Your task to perform on an android device: check battery use Image 0: 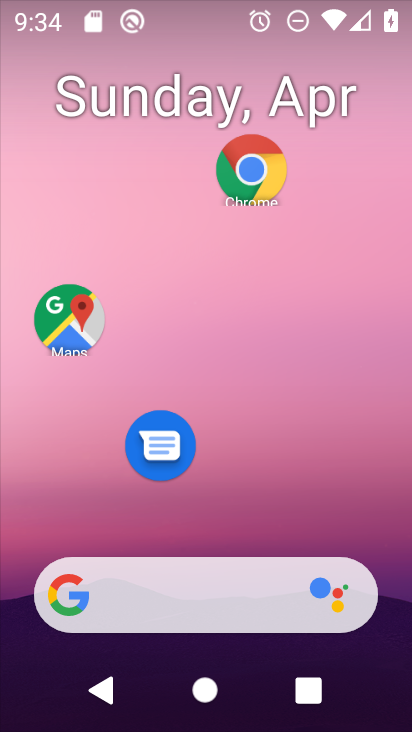
Step 0: drag from (296, 444) to (307, 94)
Your task to perform on an android device: check battery use Image 1: 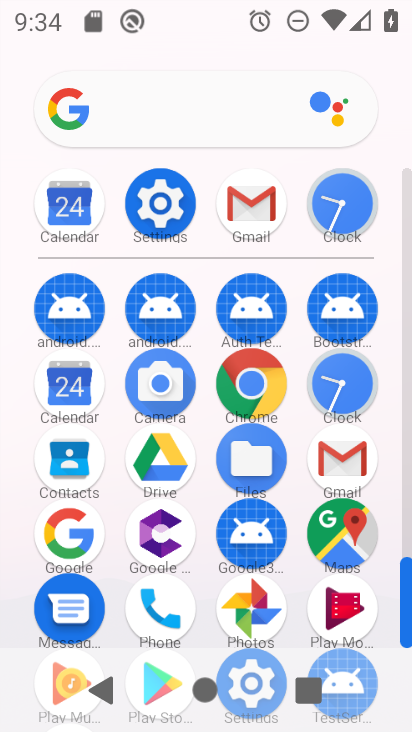
Step 1: click (170, 203)
Your task to perform on an android device: check battery use Image 2: 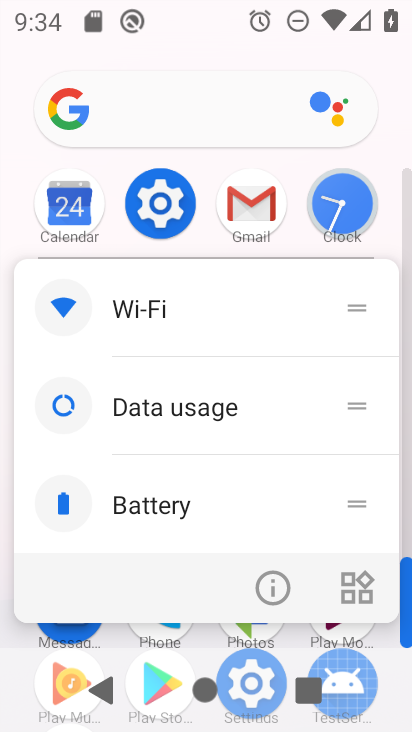
Step 2: click (170, 203)
Your task to perform on an android device: check battery use Image 3: 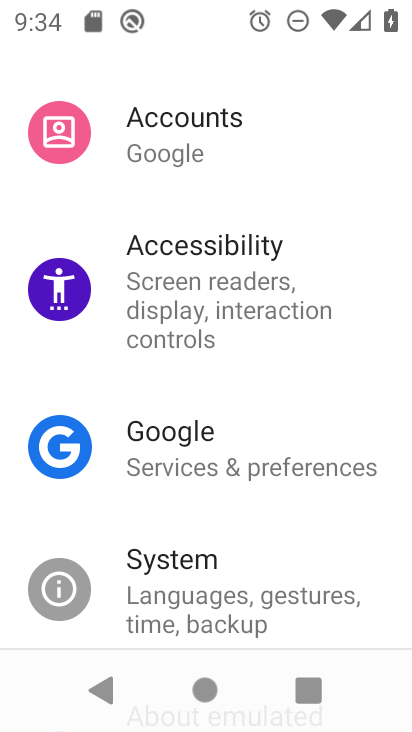
Step 3: drag from (239, 190) to (287, 521)
Your task to perform on an android device: check battery use Image 4: 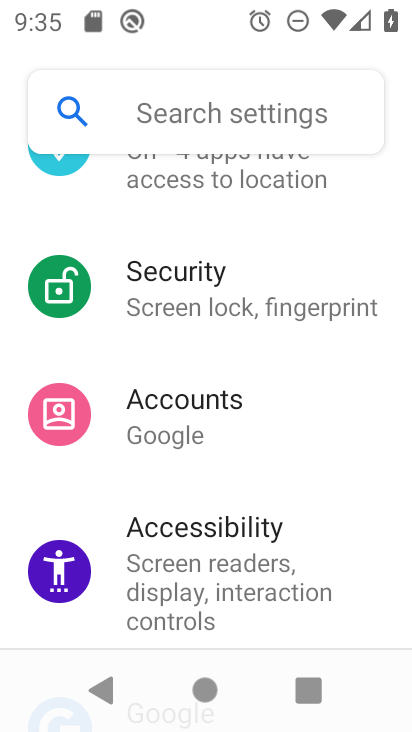
Step 4: drag from (131, 231) to (204, 602)
Your task to perform on an android device: check battery use Image 5: 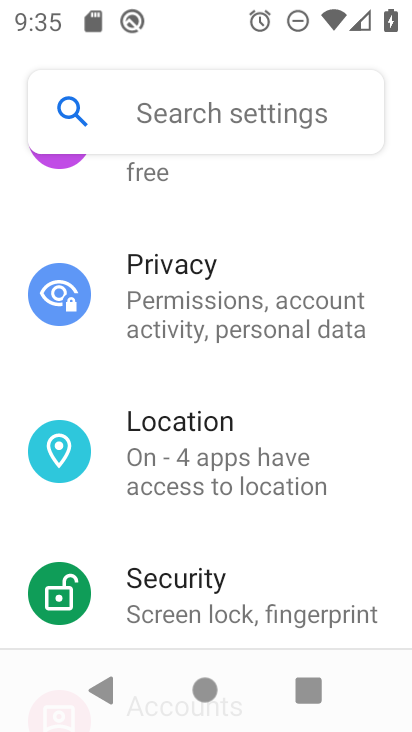
Step 5: drag from (148, 225) to (263, 619)
Your task to perform on an android device: check battery use Image 6: 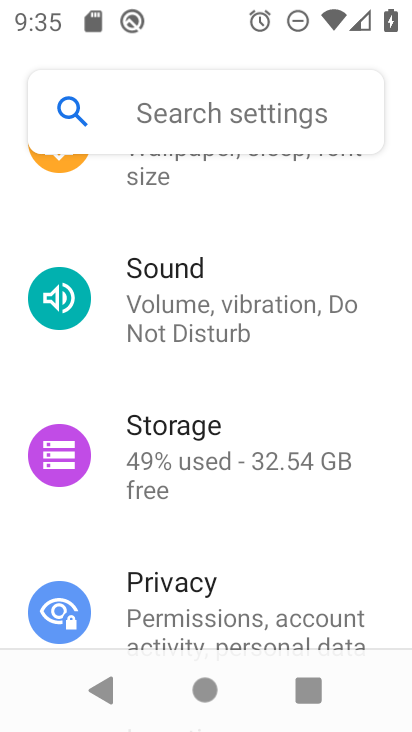
Step 6: drag from (153, 232) to (265, 608)
Your task to perform on an android device: check battery use Image 7: 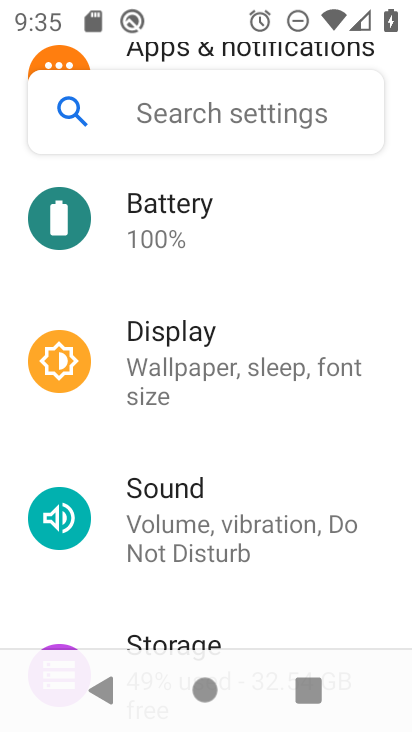
Step 7: drag from (142, 265) to (204, 559)
Your task to perform on an android device: check battery use Image 8: 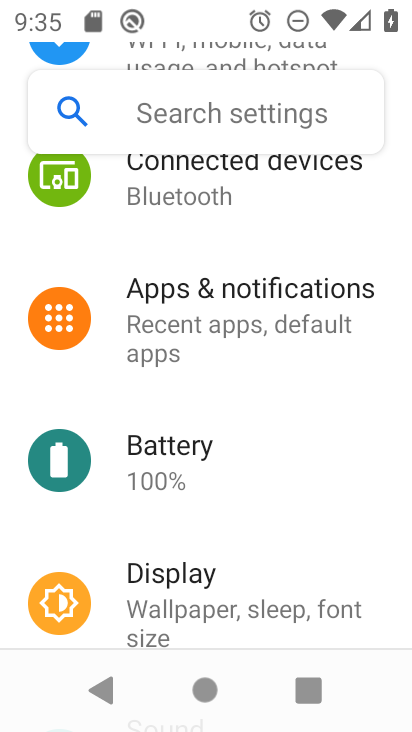
Step 8: drag from (150, 247) to (266, 324)
Your task to perform on an android device: check battery use Image 9: 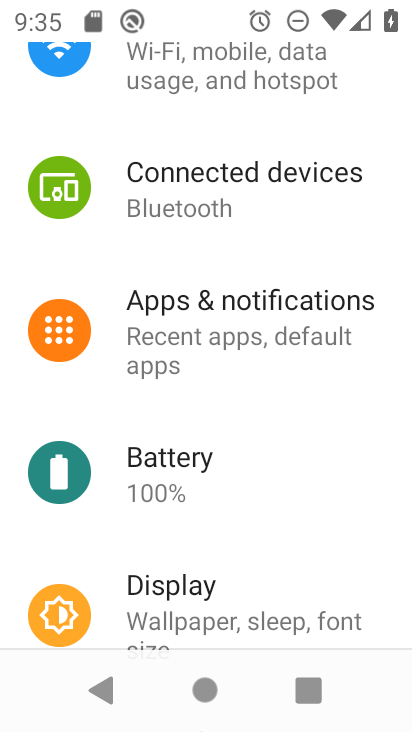
Step 9: click (196, 467)
Your task to perform on an android device: check battery use Image 10: 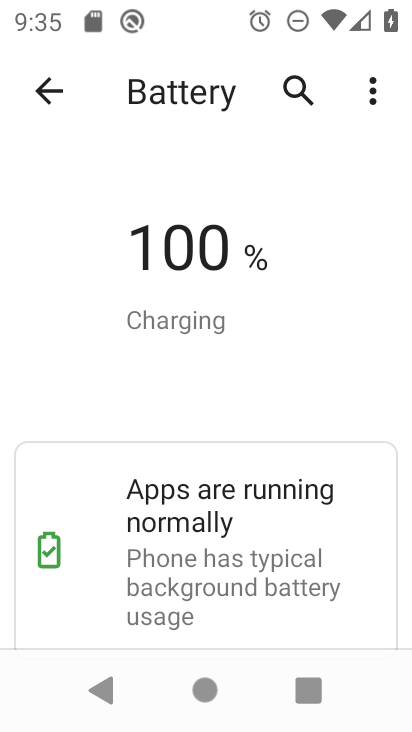
Step 10: click (370, 98)
Your task to perform on an android device: check battery use Image 11: 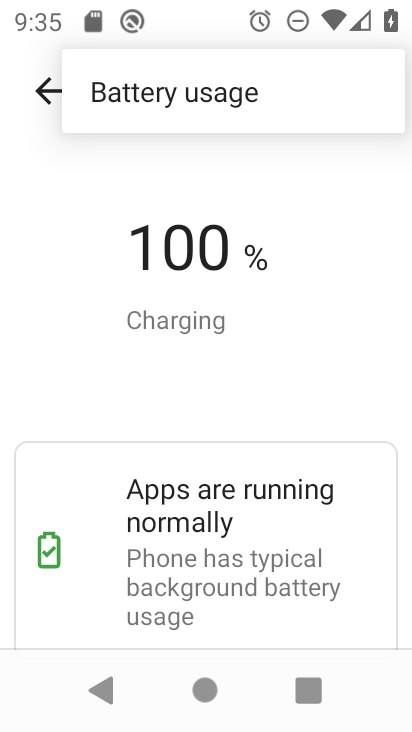
Step 11: click (239, 101)
Your task to perform on an android device: check battery use Image 12: 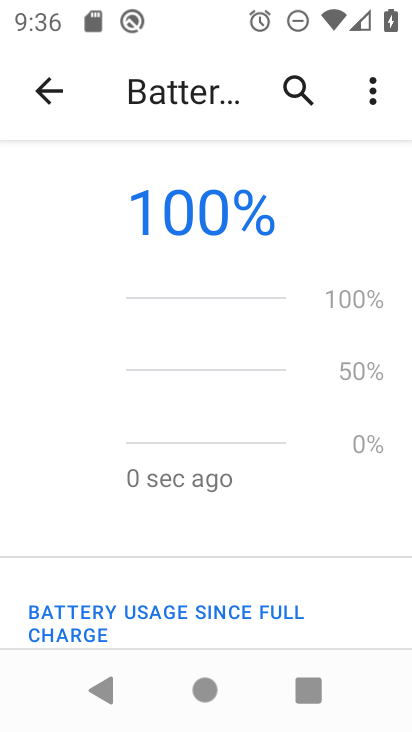
Step 12: task complete